Your task to perform on an android device: Open Youtube and go to the subscriptions tab Image 0: 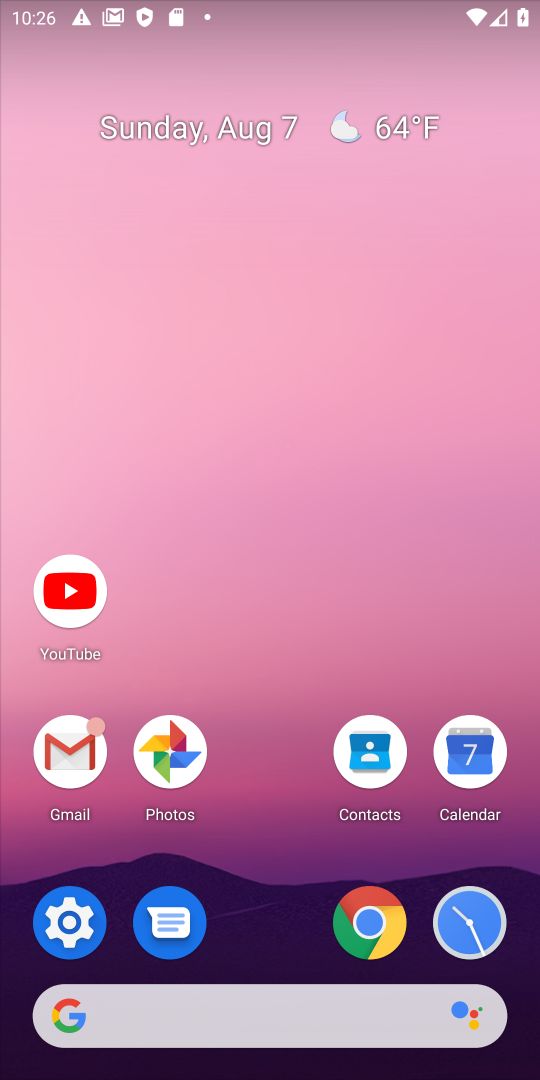
Step 0: click (61, 593)
Your task to perform on an android device: Open Youtube and go to the subscriptions tab Image 1: 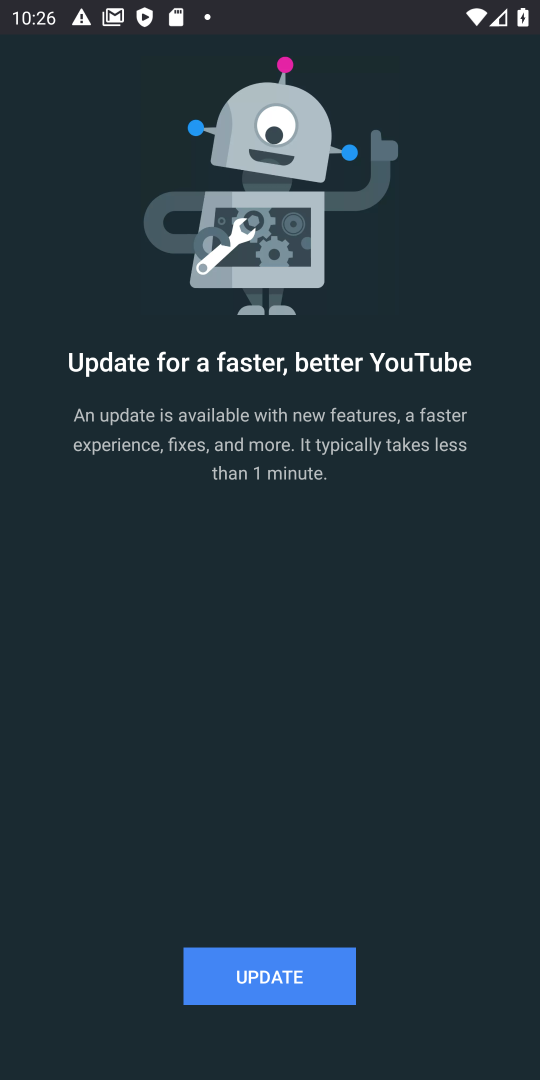
Step 1: click (237, 955)
Your task to perform on an android device: Open Youtube and go to the subscriptions tab Image 2: 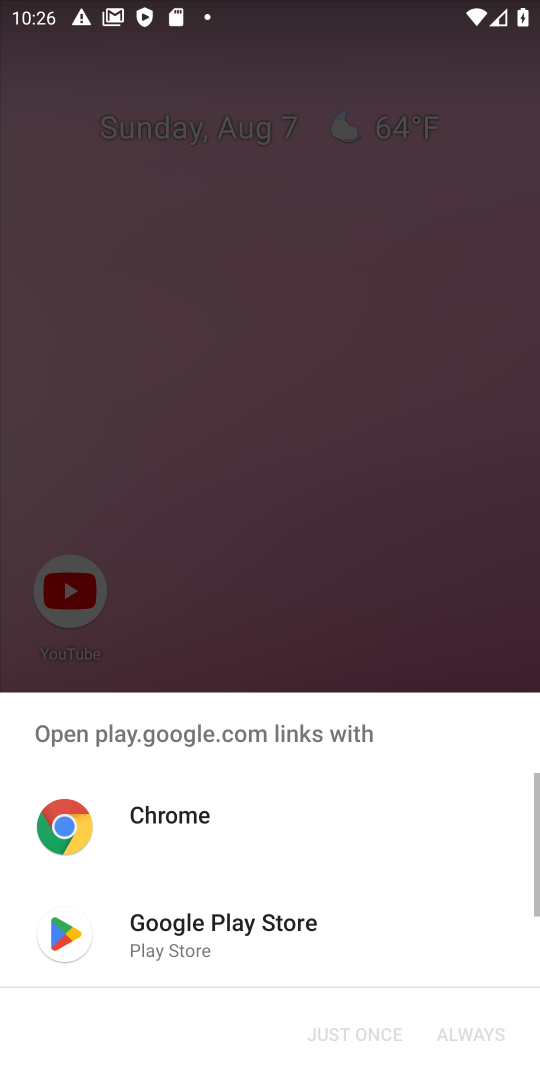
Step 2: click (203, 928)
Your task to perform on an android device: Open Youtube and go to the subscriptions tab Image 3: 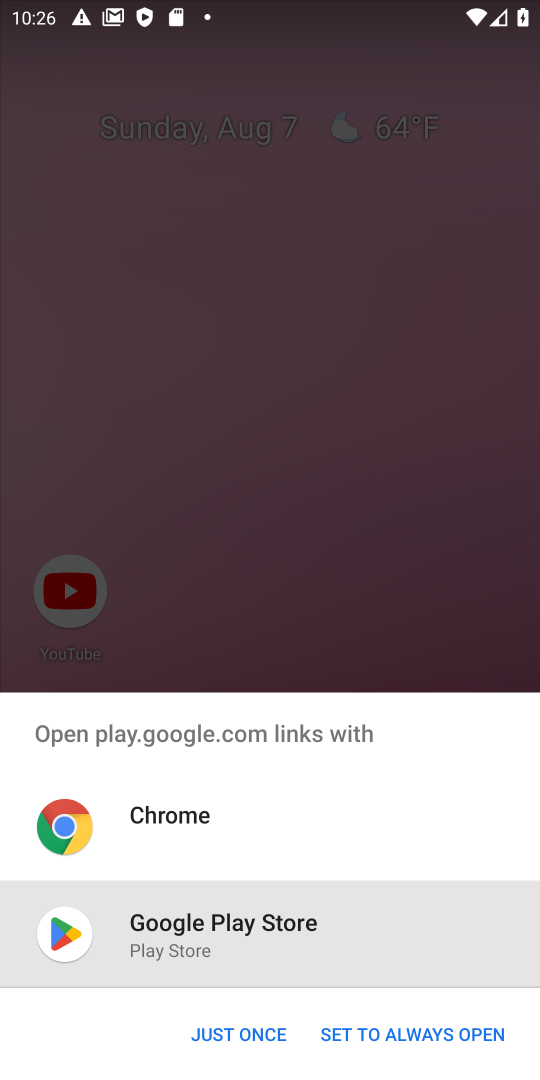
Step 3: click (233, 1028)
Your task to perform on an android device: Open Youtube and go to the subscriptions tab Image 4: 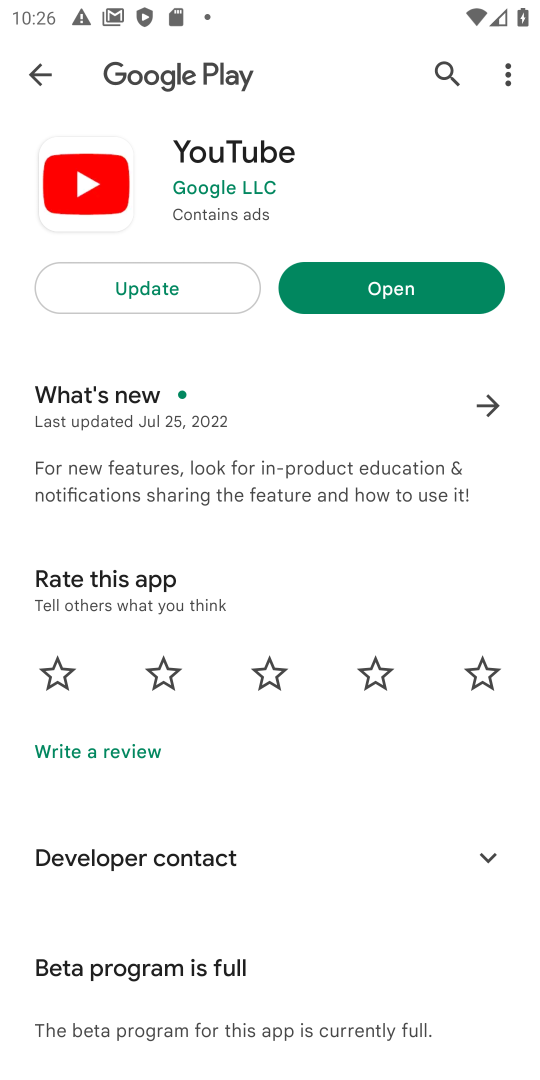
Step 4: click (169, 282)
Your task to perform on an android device: Open Youtube and go to the subscriptions tab Image 5: 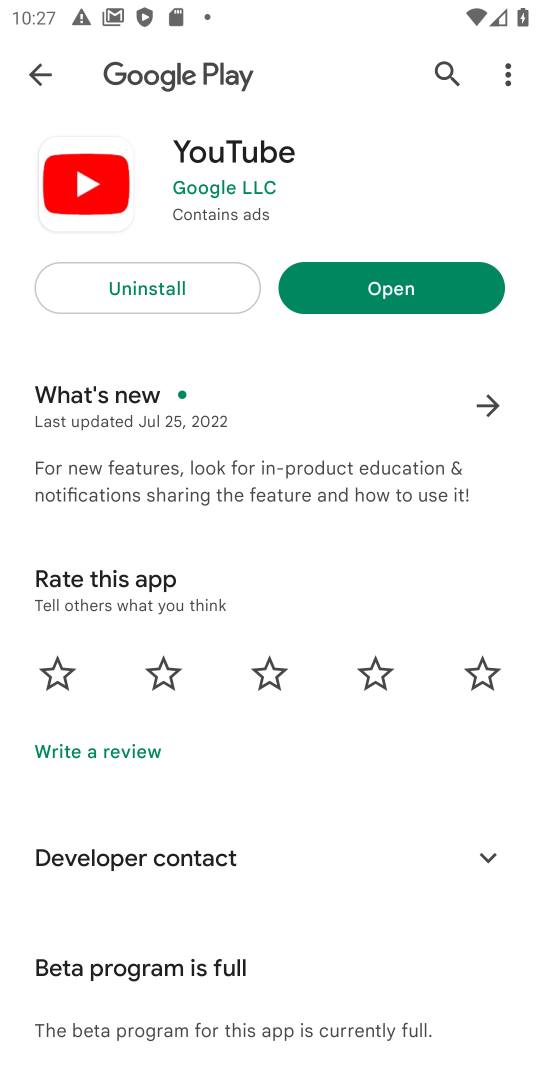
Step 5: click (372, 277)
Your task to perform on an android device: Open Youtube and go to the subscriptions tab Image 6: 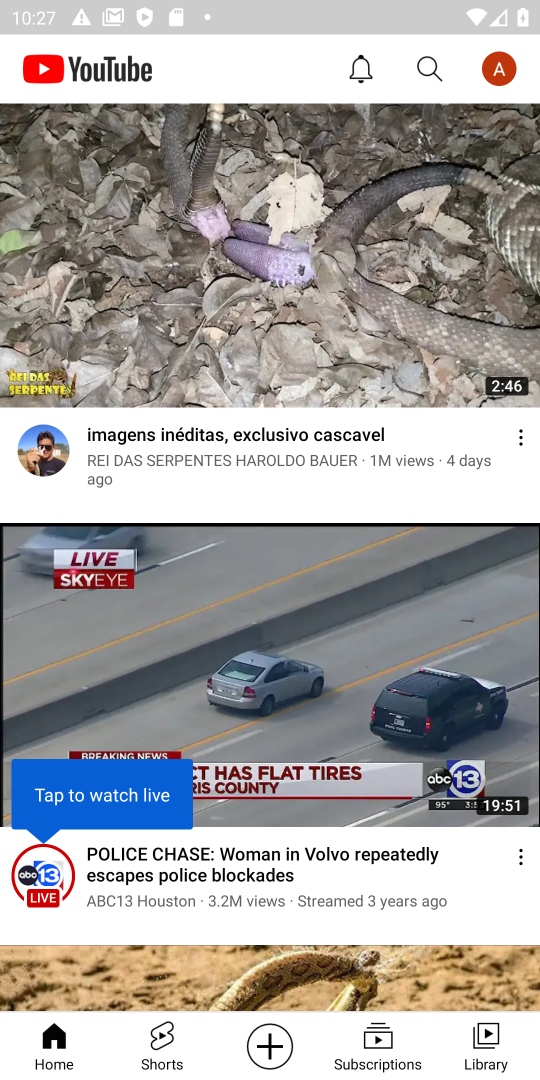
Step 6: click (376, 1041)
Your task to perform on an android device: Open Youtube and go to the subscriptions tab Image 7: 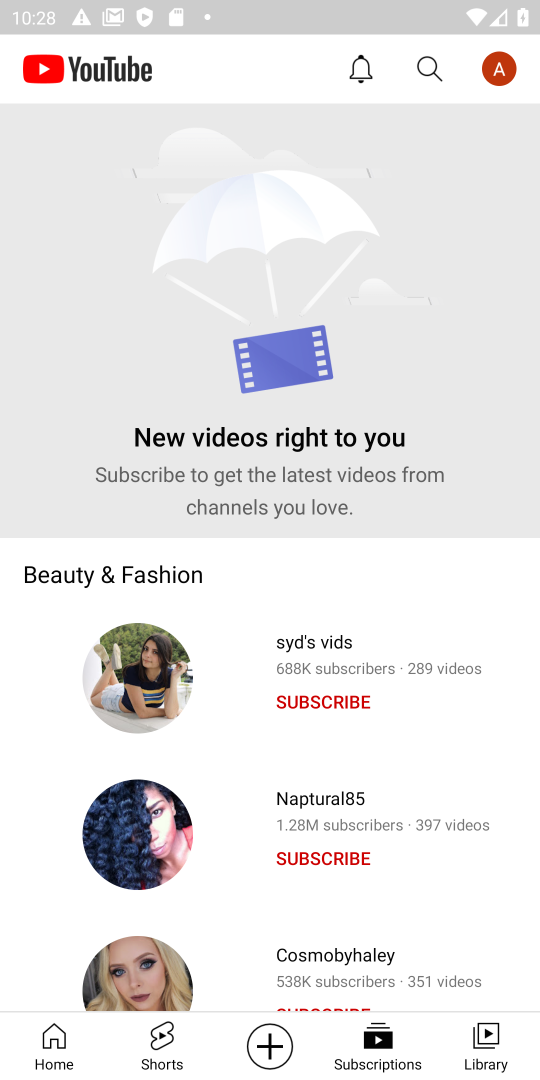
Step 7: task complete